Your task to perform on an android device: Show me recent news Image 0: 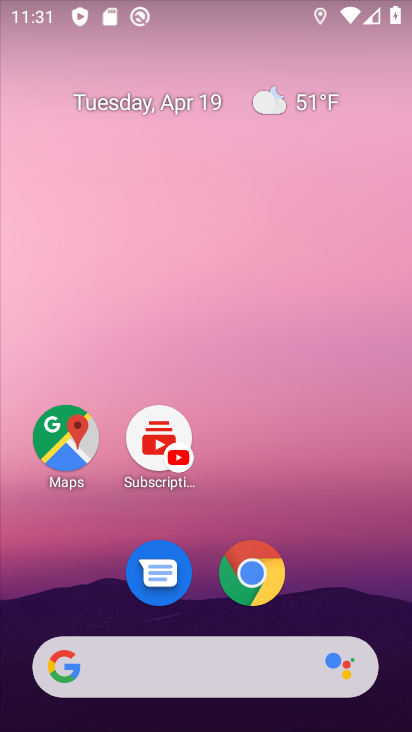
Step 0: click (260, 584)
Your task to perform on an android device: Show me recent news Image 1: 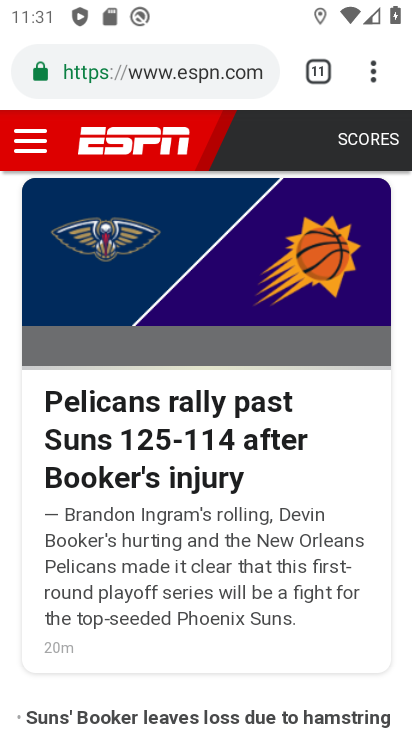
Step 1: click (320, 73)
Your task to perform on an android device: Show me recent news Image 2: 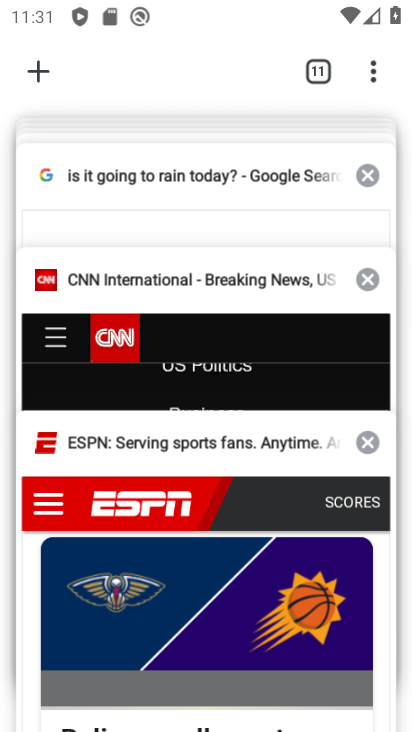
Step 2: drag from (185, 175) to (170, 477)
Your task to perform on an android device: Show me recent news Image 3: 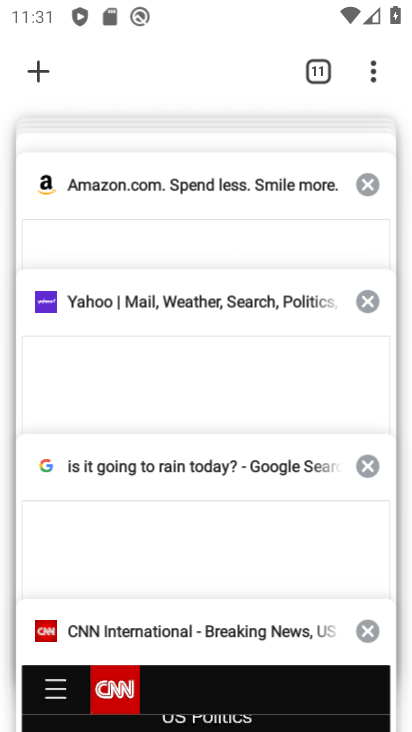
Step 3: drag from (132, 179) to (106, 476)
Your task to perform on an android device: Show me recent news Image 4: 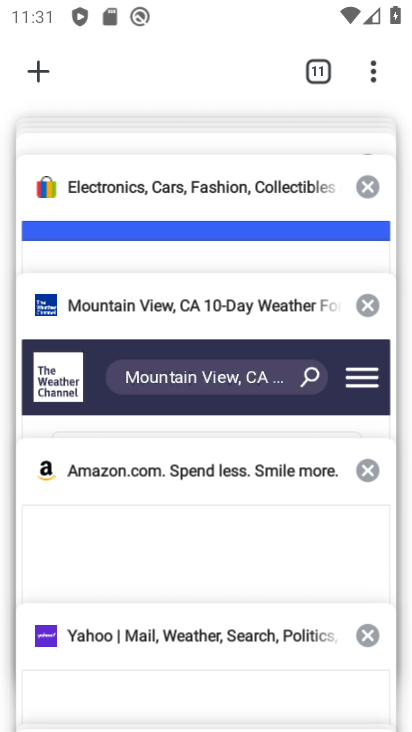
Step 4: drag from (134, 174) to (119, 442)
Your task to perform on an android device: Show me recent news Image 5: 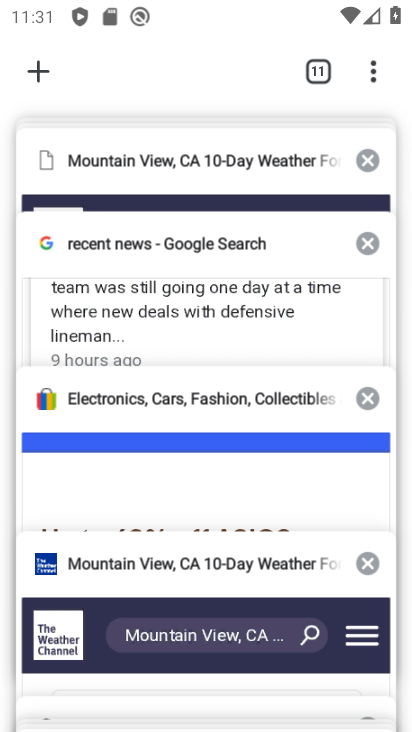
Step 5: click (146, 292)
Your task to perform on an android device: Show me recent news Image 6: 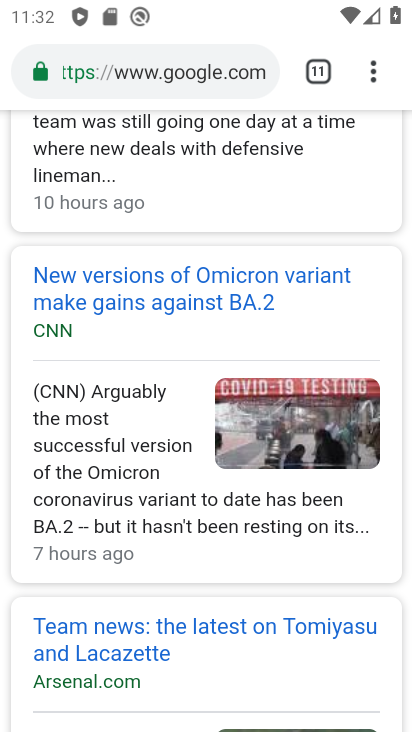
Step 6: task complete